Your task to perform on an android device: Is it going to rain this weekend? Image 0: 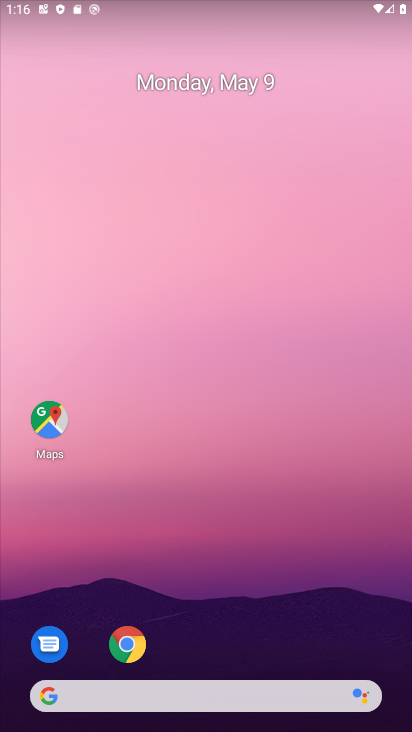
Step 0: drag from (249, 575) to (267, 269)
Your task to perform on an android device: Is it going to rain this weekend? Image 1: 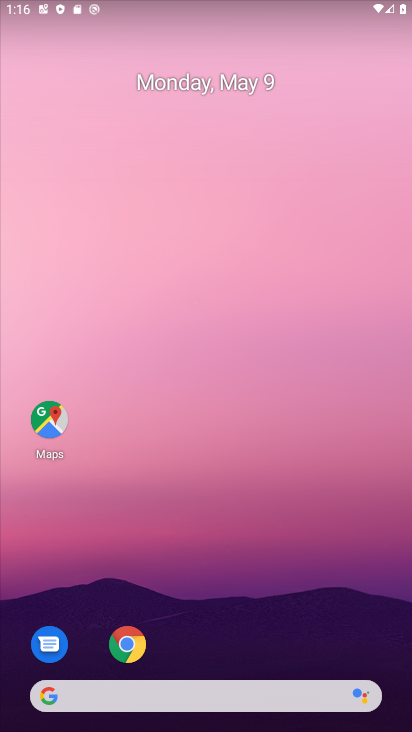
Step 1: drag from (282, 596) to (340, 233)
Your task to perform on an android device: Is it going to rain this weekend? Image 2: 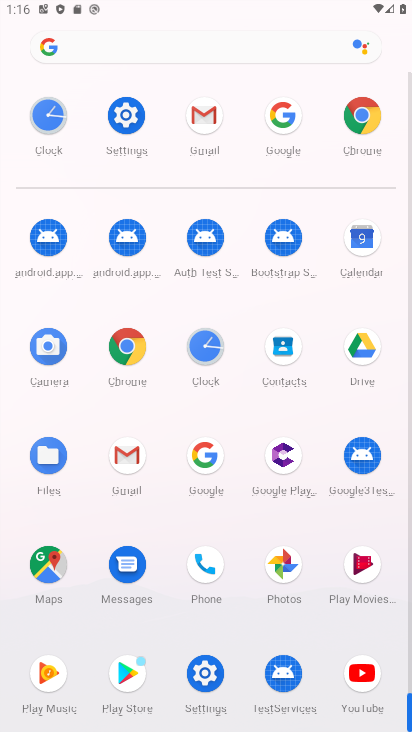
Step 2: click (203, 498)
Your task to perform on an android device: Is it going to rain this weekend? Image 3: 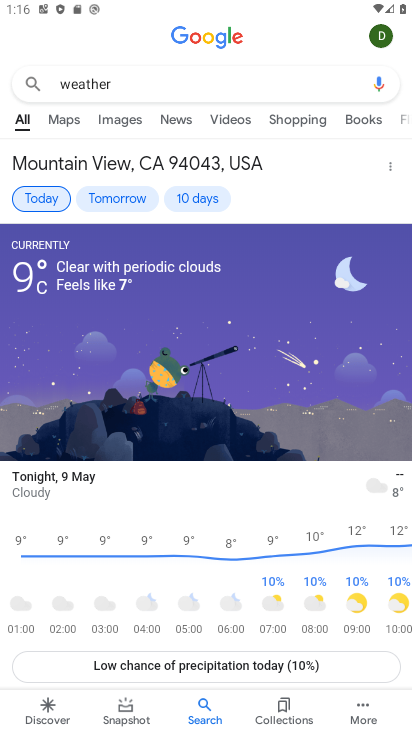
Step 3: click (213, 205)
Your task to perform on an android device: Is it going to rain this weekend? Image 4: 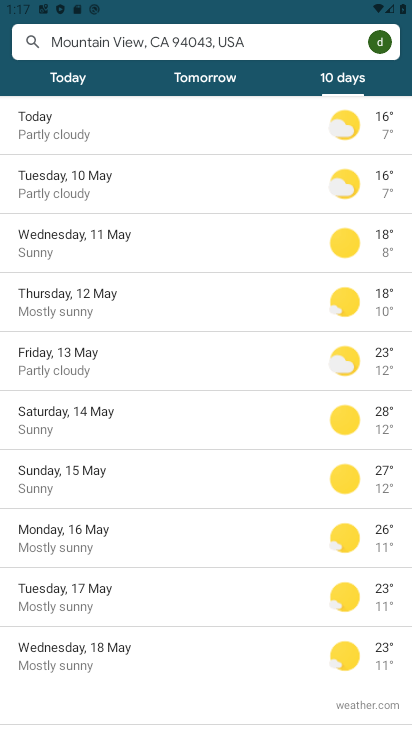
Step 4: task complete